Your task to perform on an android device: Go to Google Image 0: 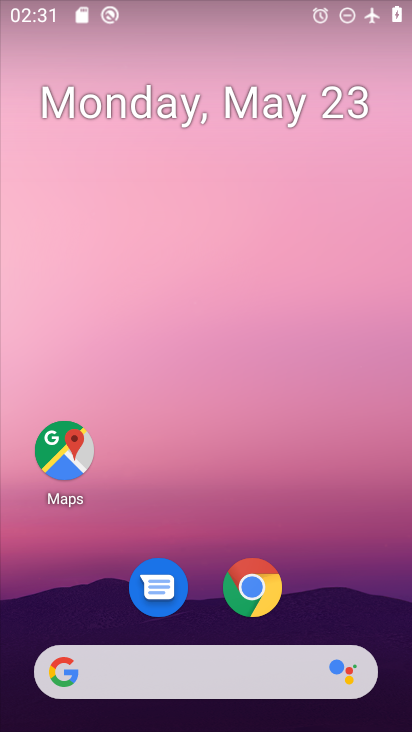
Step 0: click (234, 582)
Your task to perform on an android device: Go to Google Image 1: 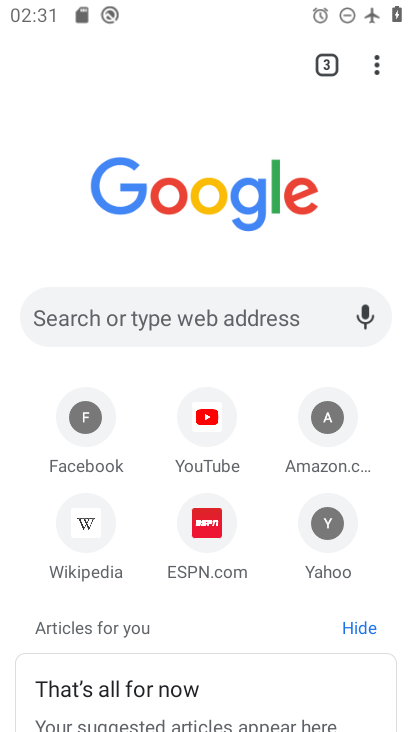
Step 1: type "google.com"
Your task to perform on an android device: Go to Google Image 2: 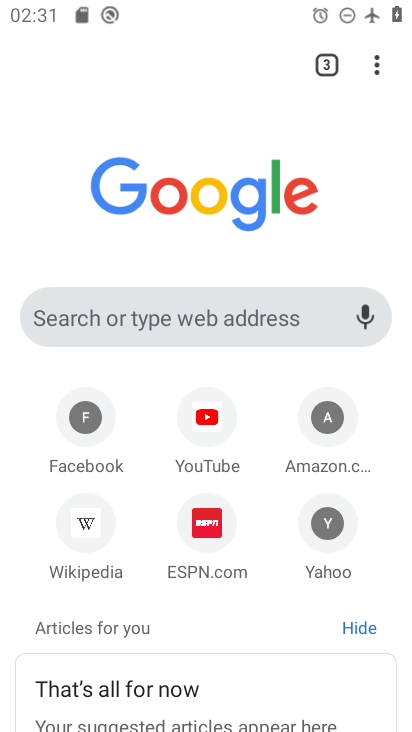
Step 2: click (278, 331)
Your task to perform on an android device: Go to Google Image 3: 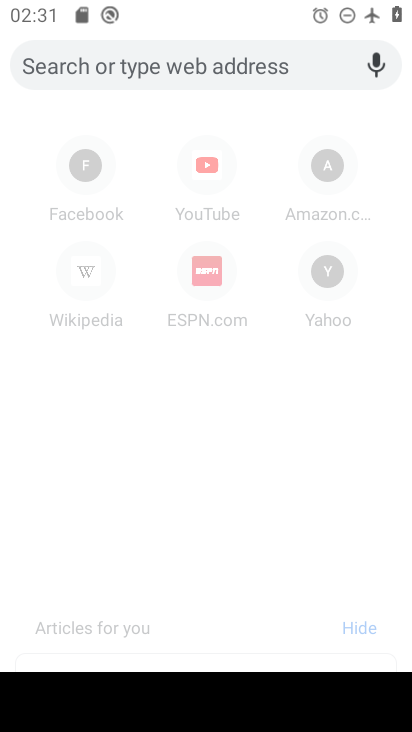
Step 3: task complete